Your task to perform on an android device: Do I have any events this weekend? Image 0: 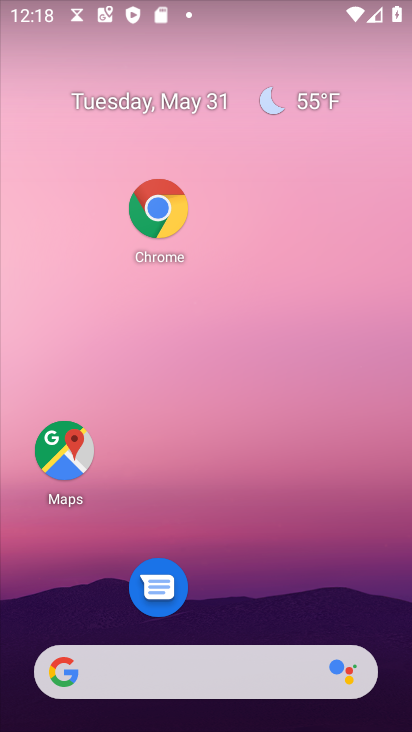
Step 0: drag from (93, 13) to (167, 102)
Your task to perform on an android device: Do I have any events this weekend? Image 1: 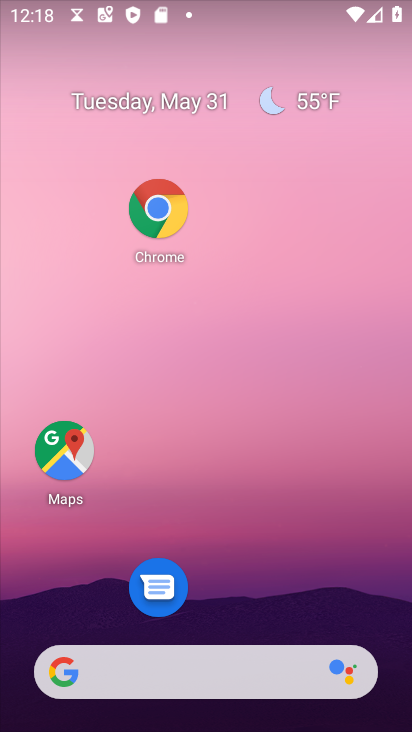
Step 1: drag from (243, 572) to (220, 213)
Your task to perform on an android device: Do I have any events this weekend? Image 2: 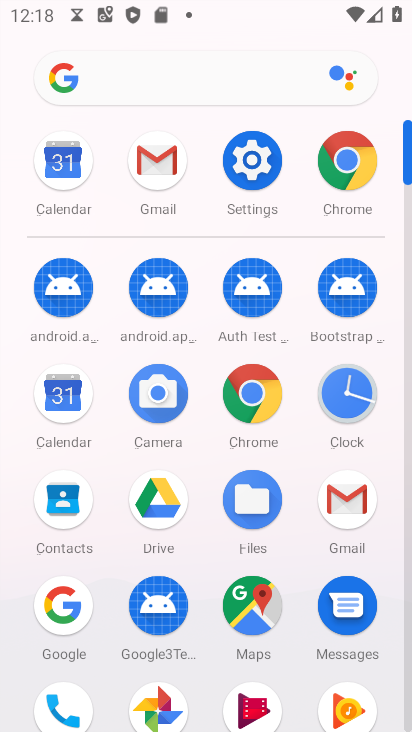
Step 2: click (68, 175)
Your task to perform on an android device: Do I have any events this weekend? Image 3: 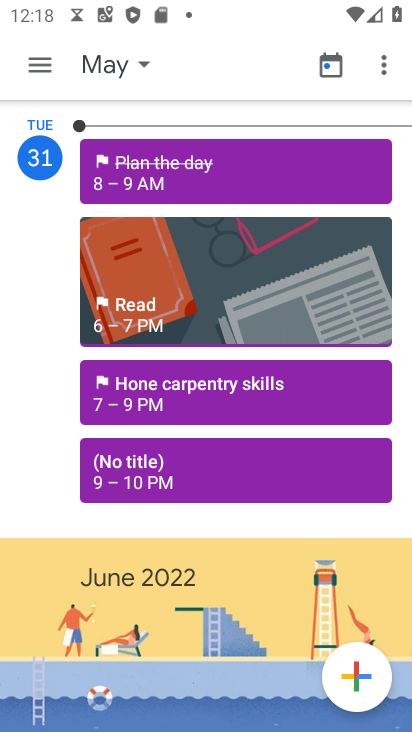
Step 3: click (104, 66)
Your task to perform on an android device: Do I have any events this weekend? Image 4: 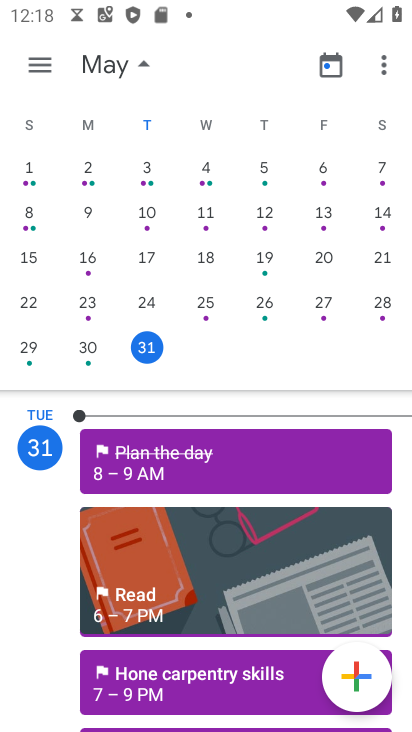
Step 4: drag from (289, 276) to (59, 245)
Your task to perform on an android device: Do I have any events this weekend? Image 5: 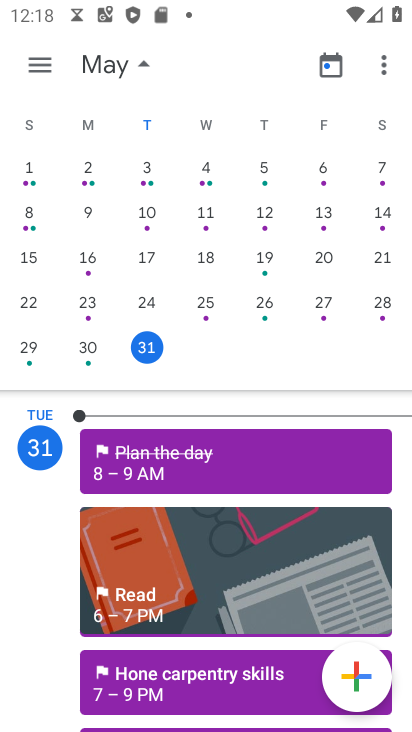
Step 5: drag from (366, 345) to (30, 302)
Your task to perform on an android device: Do I have any events this weekend? Image 6: 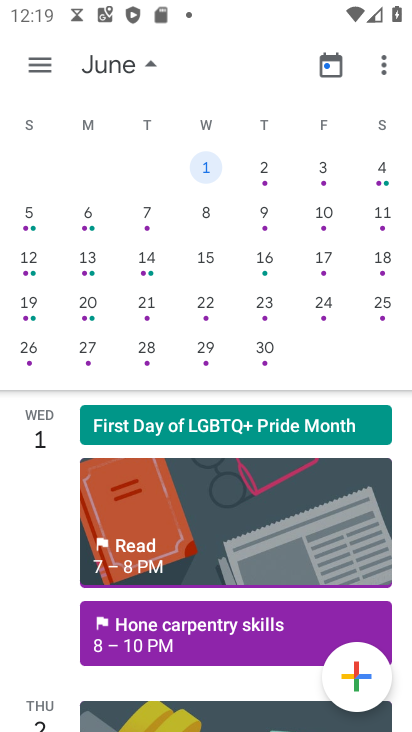
Step 6: click (385, 173)
Your task to perform on an android device: Do I have any events this weekend? Image 7: 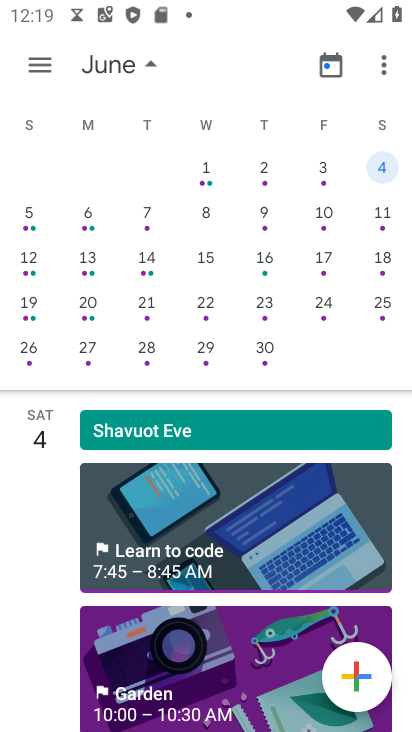
Step 7: task complete